Your task to perform on an android device: Search for sushi restaurants on Maps Image 0: 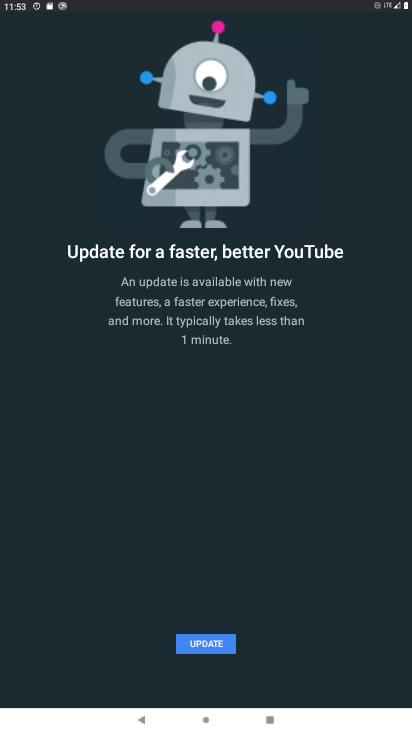
Step 0: press home button
Your task to perform on an android device: Search for sushi restaurants on Maps Image 1: 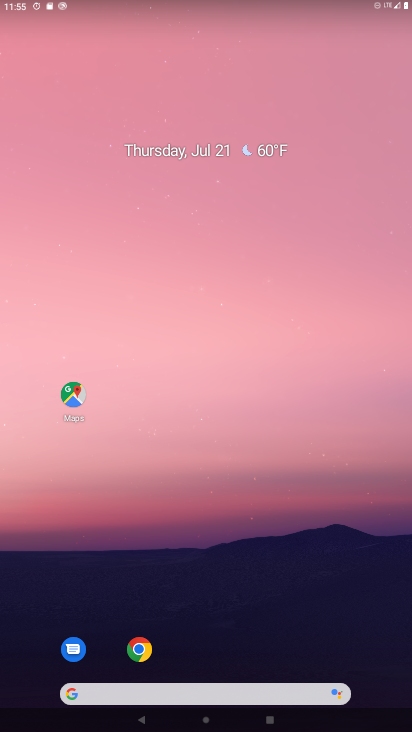
Step 1: click (81, 395)
Your task to perform on an android device: Search for sushi restaurants on Maps Image 2: 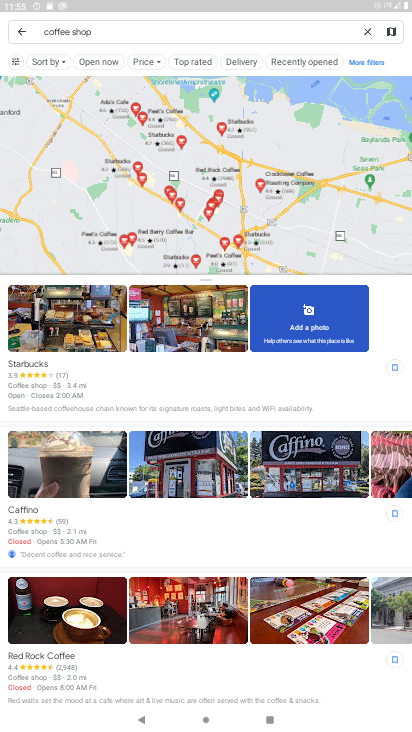
Step 2: click (366, 31)
Your task to perform on an android device: Search for sushi restaurants on Maps Image 3: 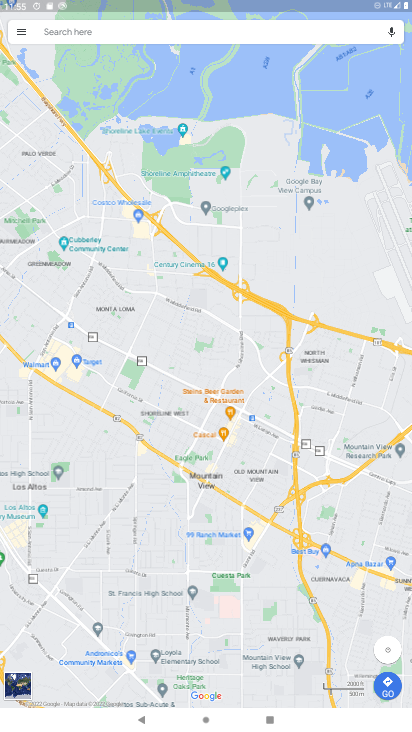
Step 3: click (54, 28)
Your task to perform on an android device: Search for sushi restaurants on Maps Image 4: 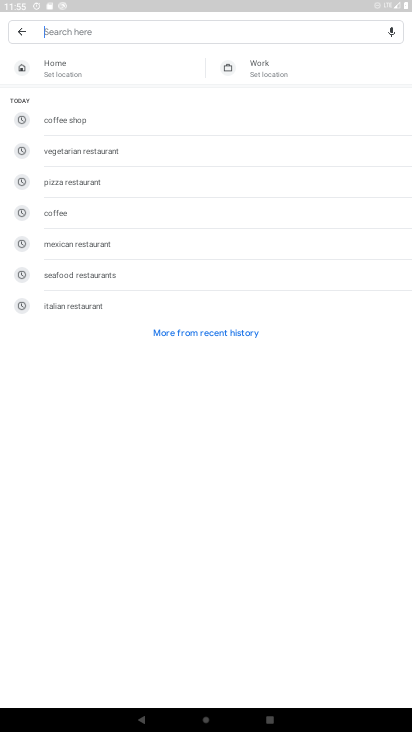
Step 4: type "sushi restaurants"
Your task to perform on an android device: Search for sushi restaurants on Maps Image 5: 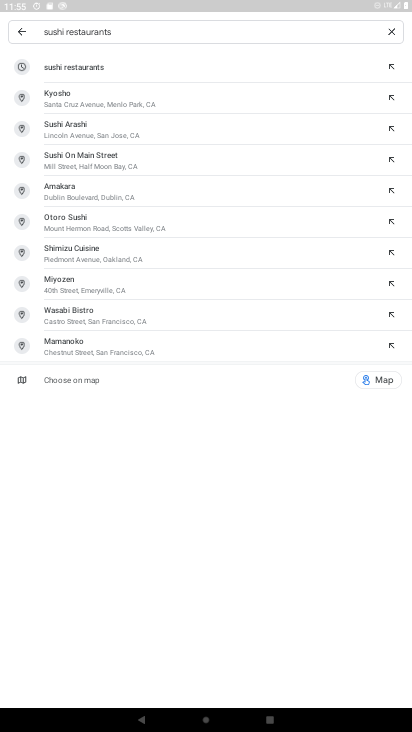
Step 5: click (56, 61)
Your task to perform on an android device: Search for sushi restaurants on Maps Image 6: 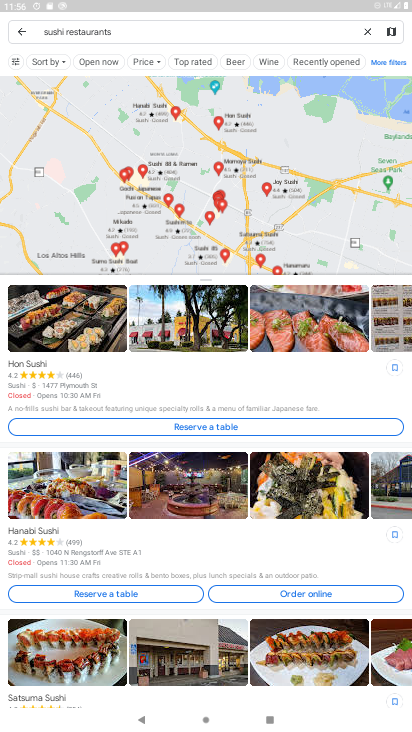
Step 6: task complete